Your task to perform on an android device: snooze an email in the gmail app Image 0: 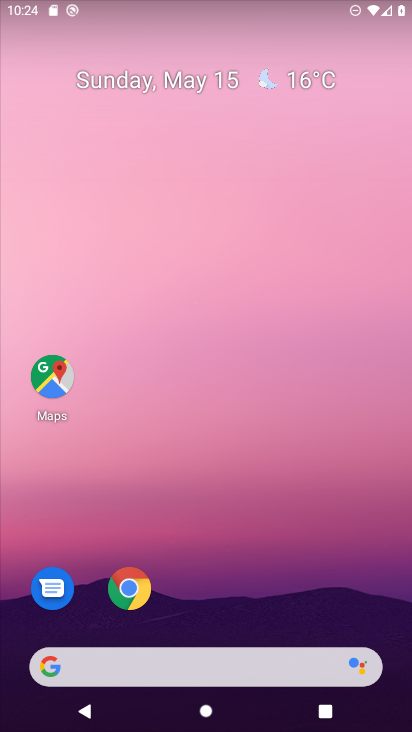
Step 0: drag from (182, 526) to (239, 23)
Your task to perform on an android device: snooze an email in the gmail app Image 1: 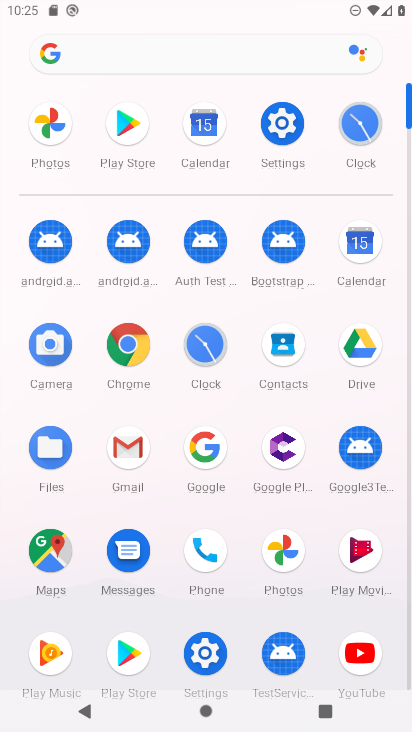
Step 1: click (130, 456)
Your task to perform on an android device: snooze an email in the gmail app Image 2: 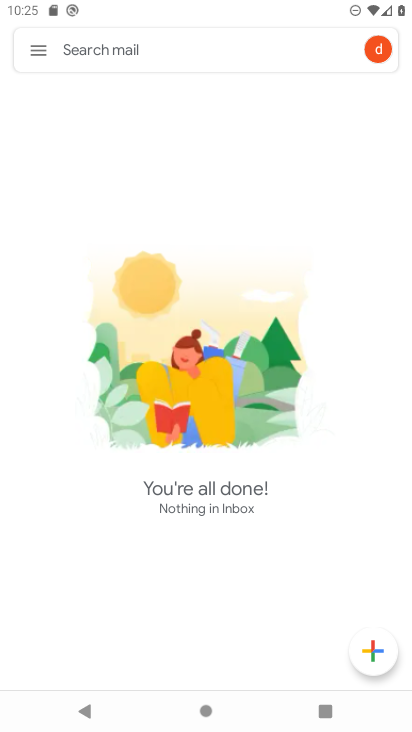
Step 2: task complete